Your task to perform on an android device: check out phone information Image 0: 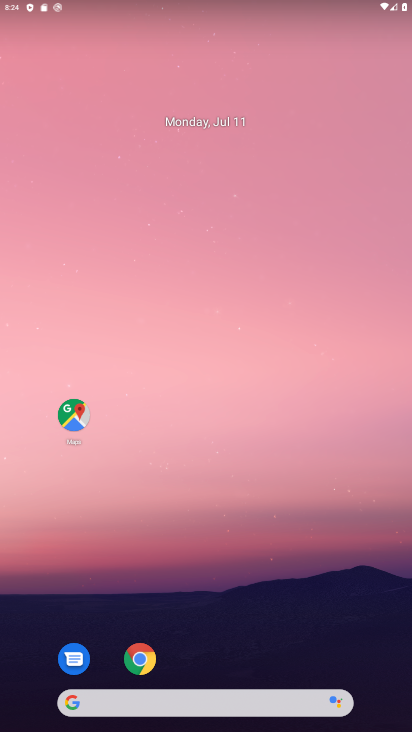
Step 0: drag from (20, 710) to (243, 31)
Your task to perform on an android device: check out phone information Image 1: 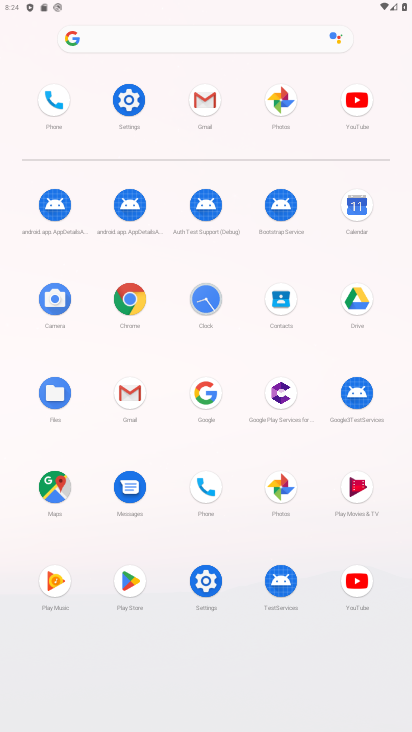
Step 1: click (204, 486)
Your task to perform on an android device: check out phone information Image 2: 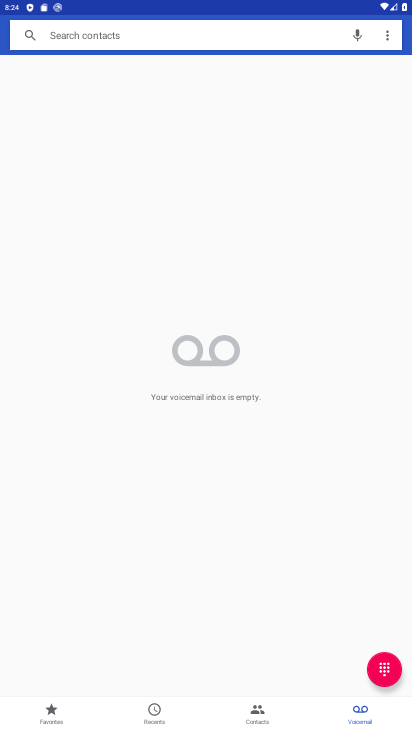
Step 2: click (154, 705)
Your task to perform on an android device: check out phone information Image 3: 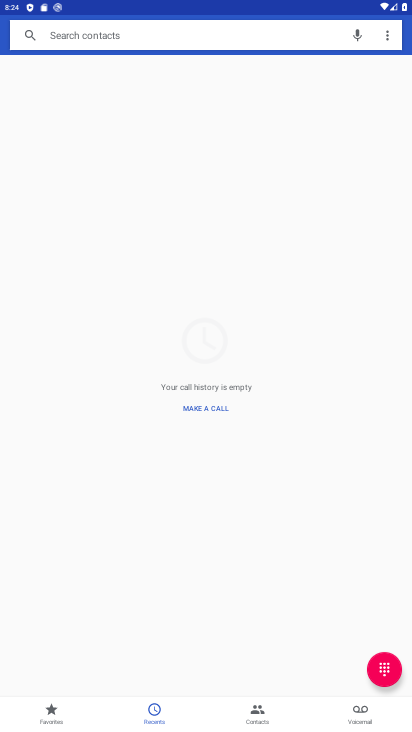
Step 3: click (238, 710)
Your task to perform on an android device: check out phone information Image 4: 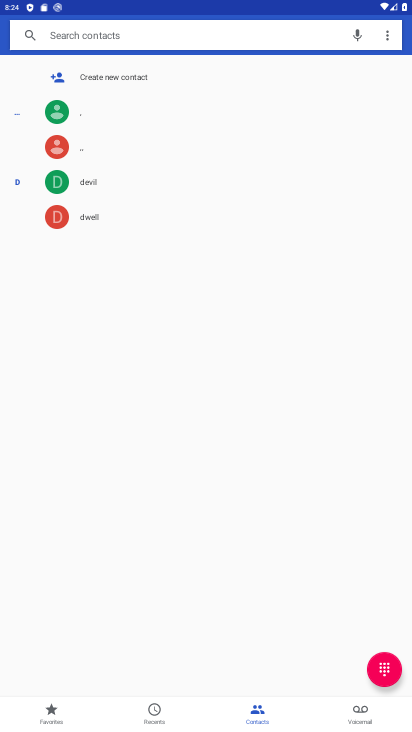
Step 4: task complete